Your task to perform on an android device: turn pop-ups off in chrome Image 0: 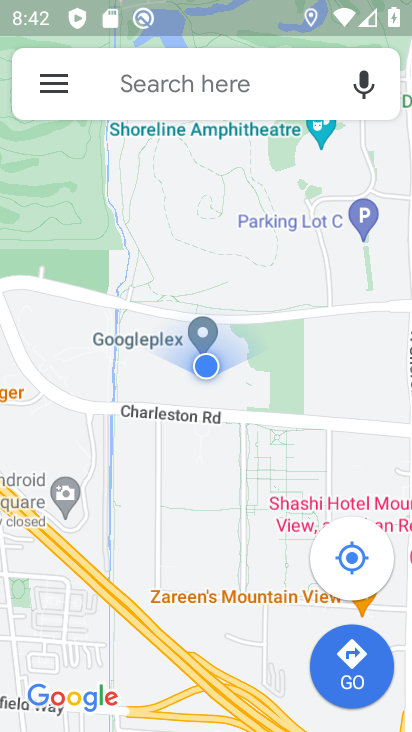
Step 0: press back button
Your task to perform on an android device: turn pop-ups off in chrome Image 1: 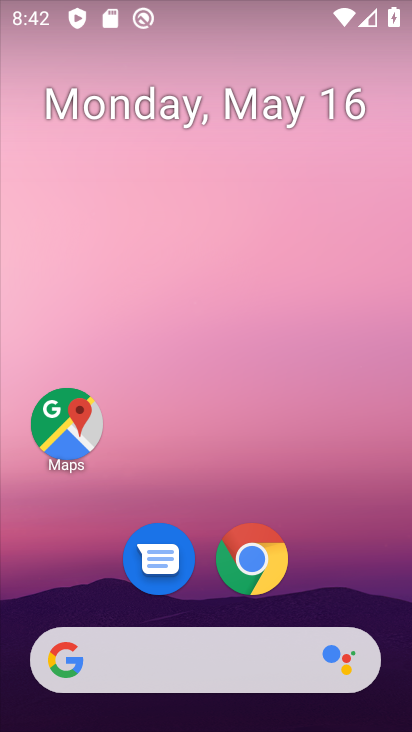
Step 1: click (269, 571)
Your task to perform on an android device: turn pop-ups off in chrome Image 2: 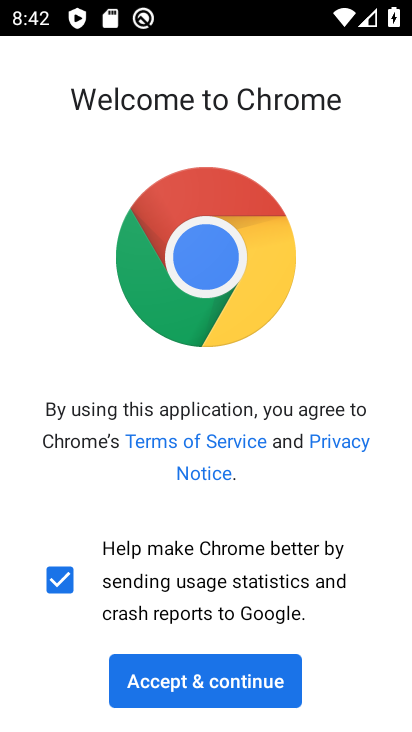
Step 2: click (250, 691)
Your task to perform on an android device: turn pop-ups off in chrome Image 3: 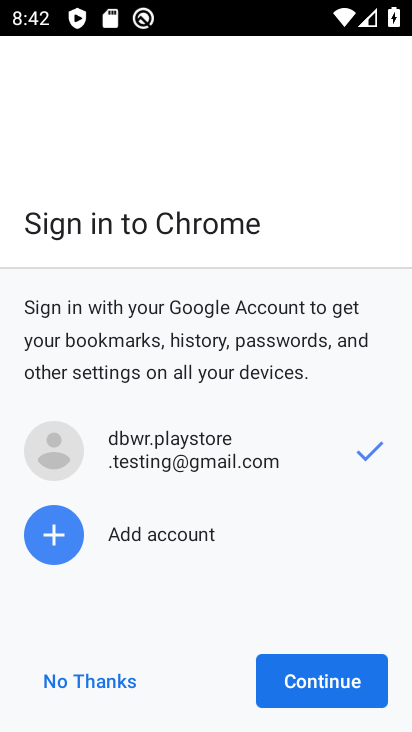
Step 3: click (297, 687)
Your task to perform on an android device: turn pop-ups off in chrome Image 4: 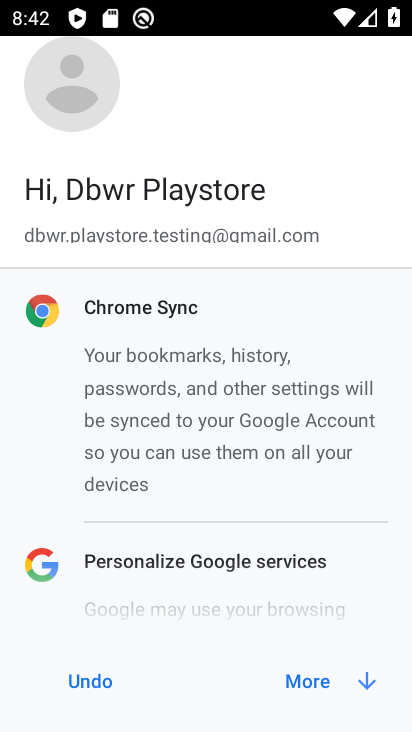
Step 4: click (297, 687)
Your task to perform on an android device: turn pop-ups off in chrome Image 5: 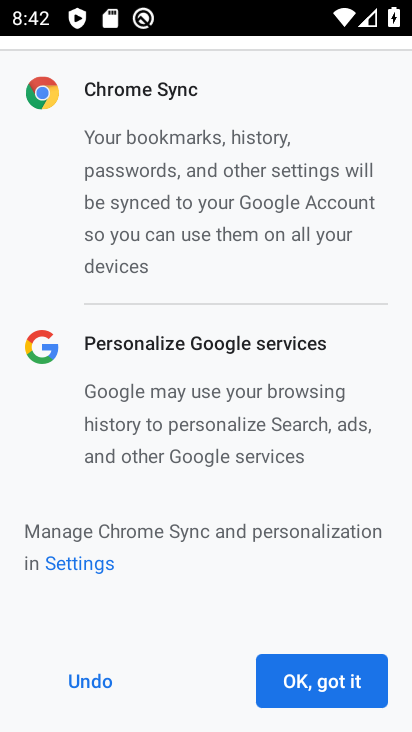
Step 5: click (297, 687)
Your task to perform on an android device: turn pop-ups off in chrome Image 6: 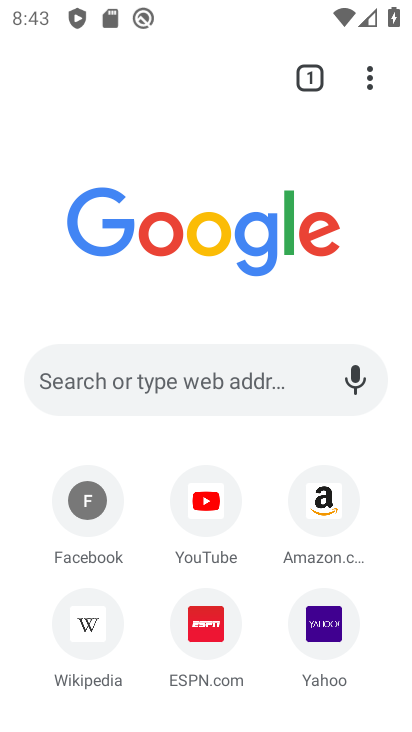
Step 6: click (364, 76)
Your task to perform on an android device: turn pop-ups off in chrome Image 7: 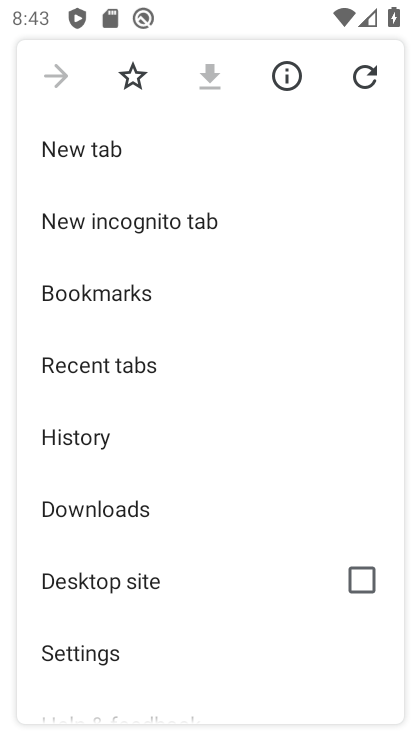
Step 7: click (134, 668)
Your task to perform on an android device: turn pop-ups off in chrome Image 8: 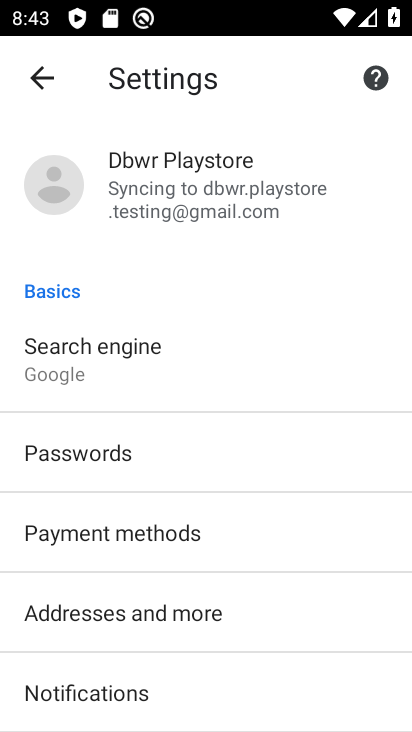
Step 8: drag from (198, 662) to (170, 344)
Your task to perform on an android device: turn pop-ups off in chrome Image 9: 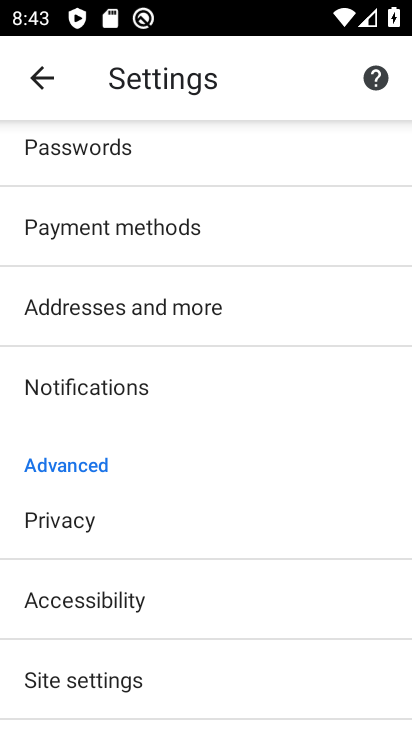
Step 9: click (146, 678)
Your task to perform on an android device: turn pop-ups off in chrome Image 10: 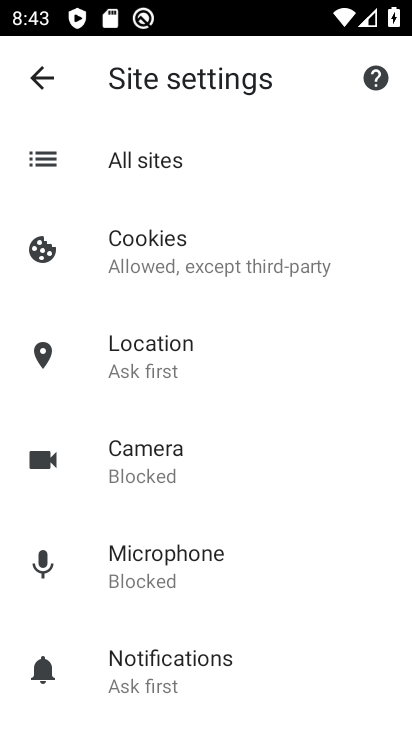
Step 10: drag from (236, 622) to (170, 300)
Your task to perform on an android device: turn pop-ups off in chrome Image 11: 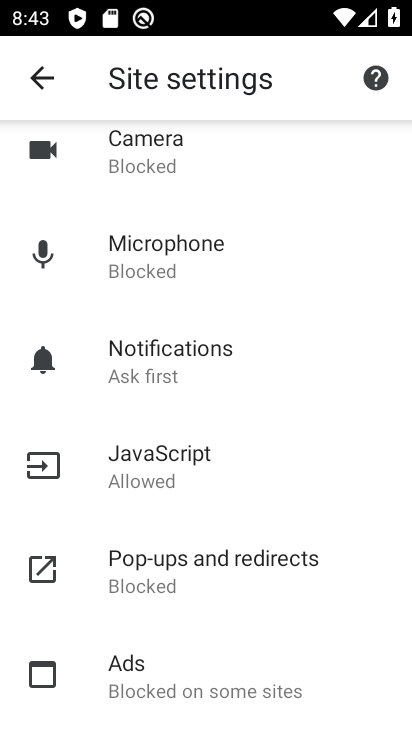
Step 11: click (237, 552)
Your task to perform on an android device: turn pop-ups off in chrome Image 12: 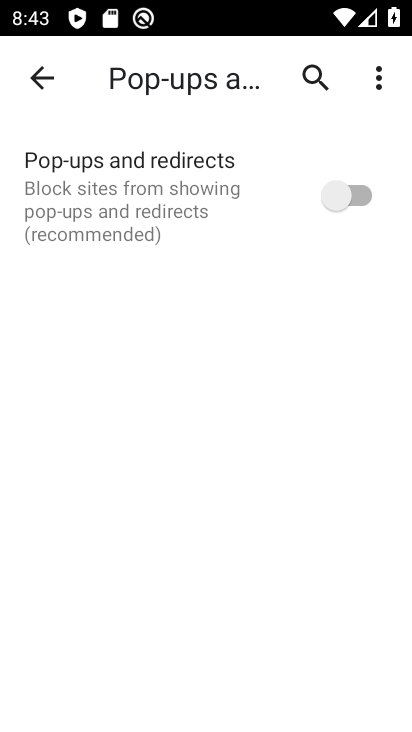
Step 12: click (351, 199)
Your task to perform on an android device: turn pop-ups off in chrome Image 13: 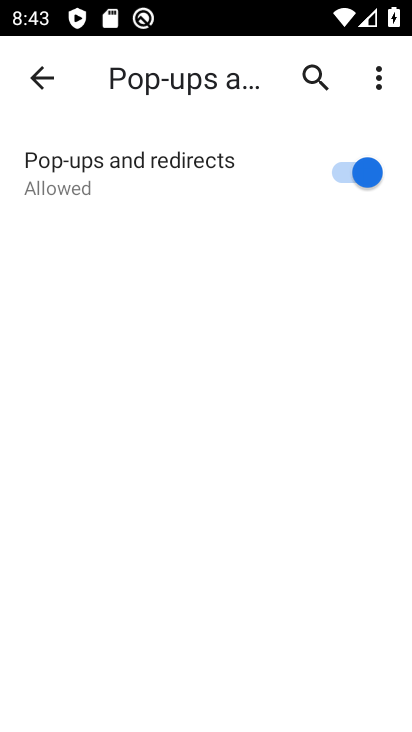
Step 13: click (351, 199)
Your task to perform on an android device: turn pop-ups off in chrome Image 14: 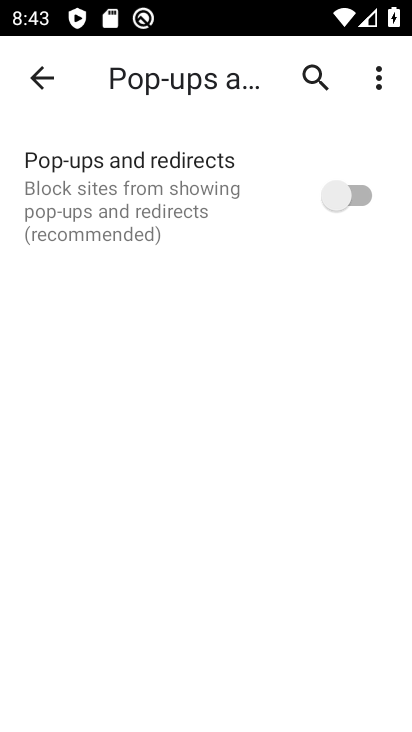
Step 14: task complete